Your task to perform on an android device: Go to accessibility settings Image 0: 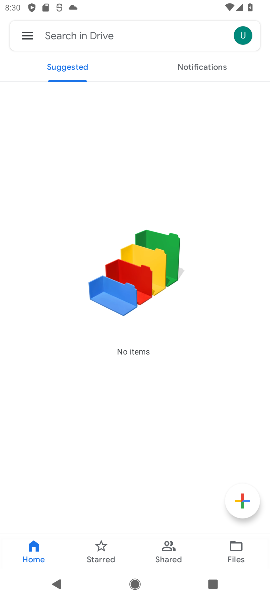
Step 0: drag from (167, 480) to (218, 106)
Your task to perform on an android device: Go to accessibility settings Image 1: 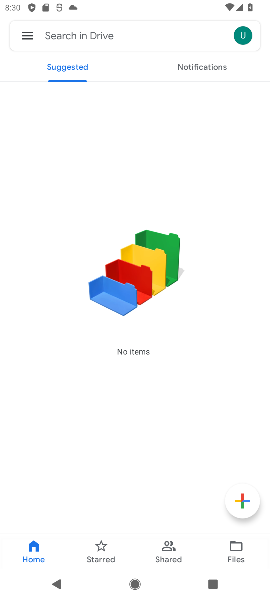
Step 1: press home button
Your task to perform on an android device: Go to accessibility settings Image 2: 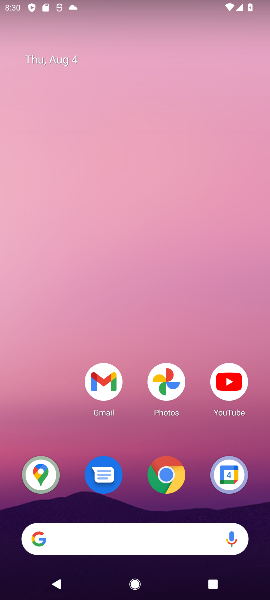
Step 2: drag from (133, 486) to (166, 190)
Your task to perform on an android device: Go to accessibility settings Image 3: 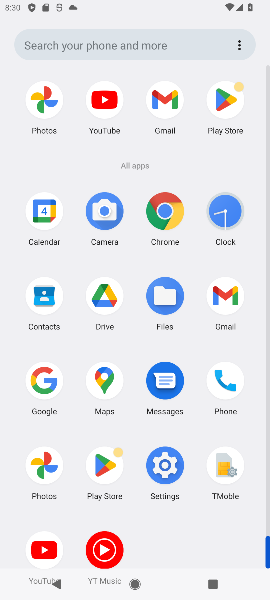
Step 3: click (171, 463)
Your task to perform on an android device: Go to accessibility settings Image 4: 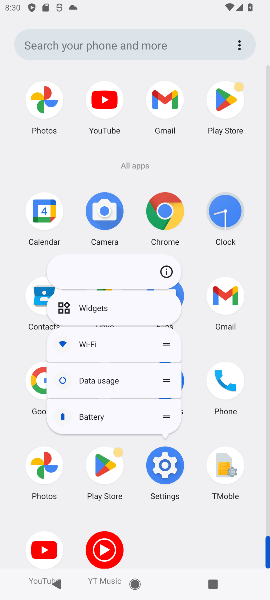
Step 4: click (168, 269)
Your task to perform on an android device: Go to accessibility settings Image 5: 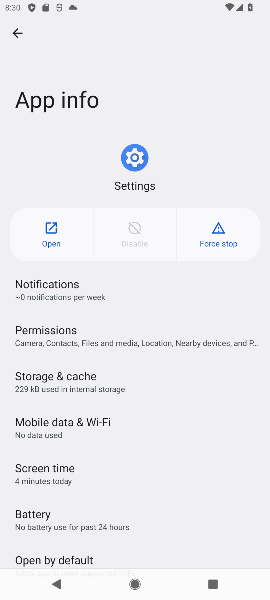
Step 5: click (55, 227)
Your task to perform on an android device: Go to accessibility settings Image 6: 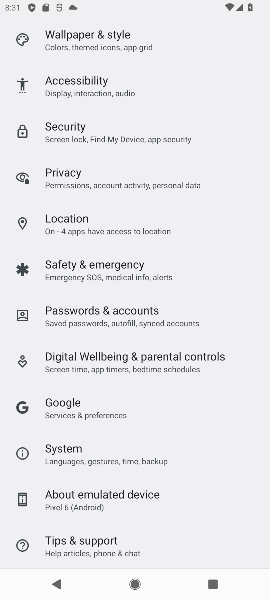
Step 6: drag from (113, 401) to (145, 231)
Your task to perform on an android device: Go to accessibility settings Image 7: 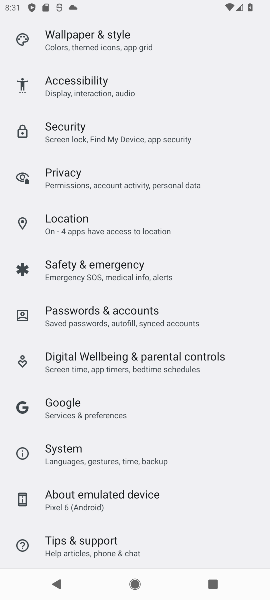
Step 7: click (104, 94)
Your task to perform on an android device: Go to accessibility settings Image 8: 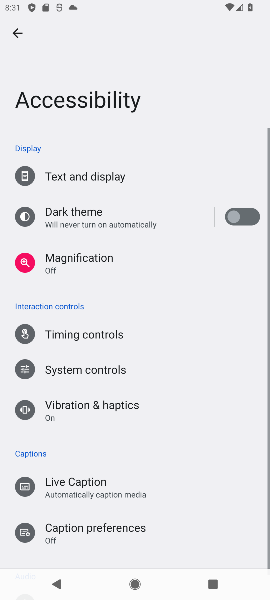
Step 8: task complete